Your task to perform on an android device: What's the weather today? Image 0: 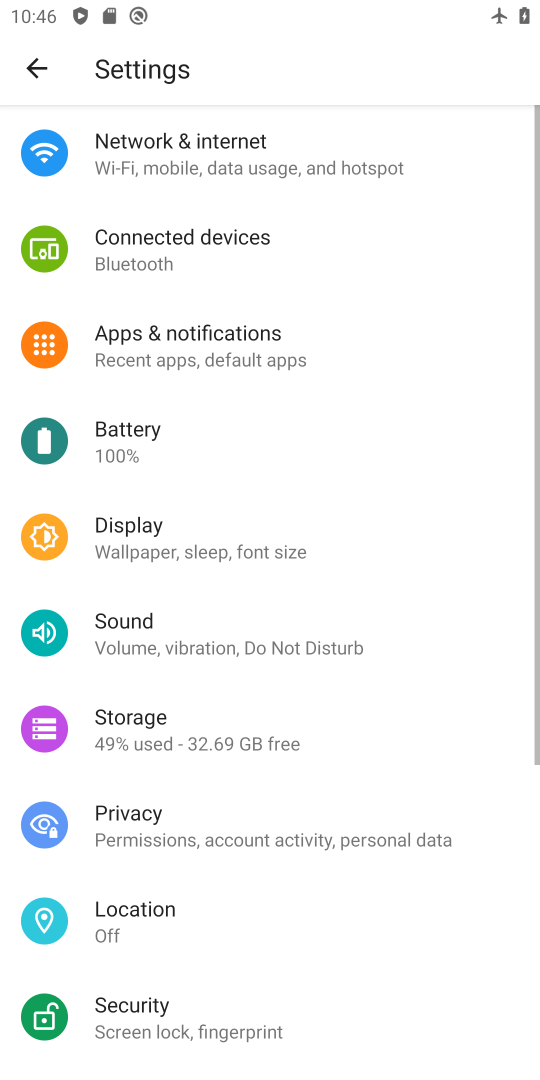
Step 0: press back button
Your task to perform on an android device: What's the weather today? Image 1: 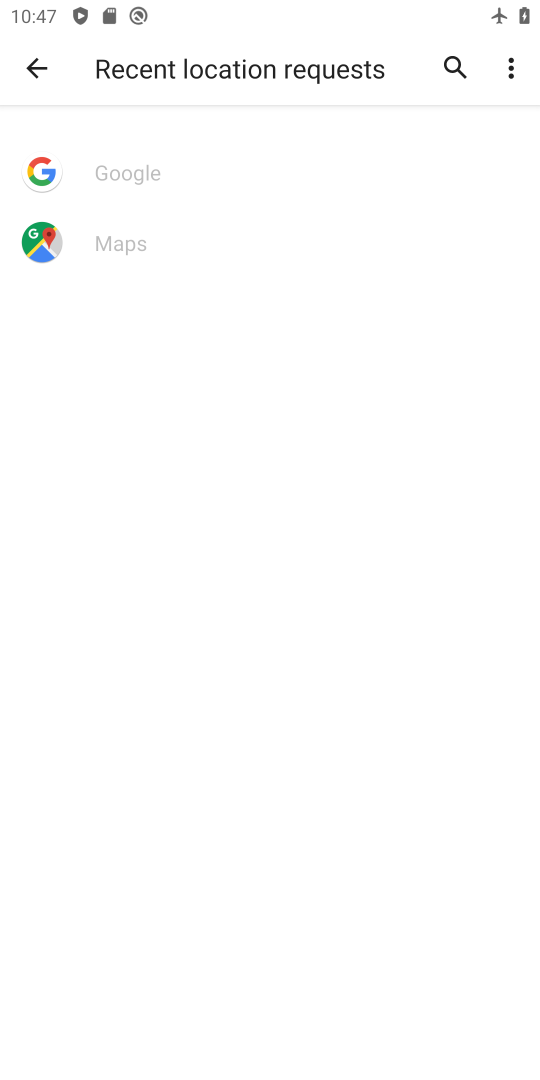
Step 1: press home button
Your task to perform on an android device: What's the weather today? Image 2: 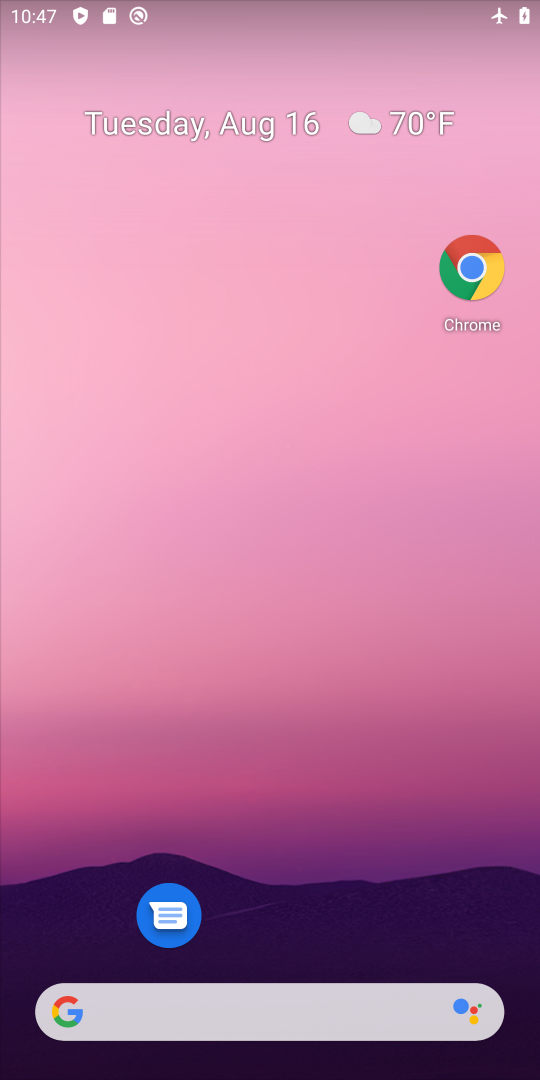
Step 2: click (283, 1035)
Your task to perform on an android device: What's the weather today? Image 3: 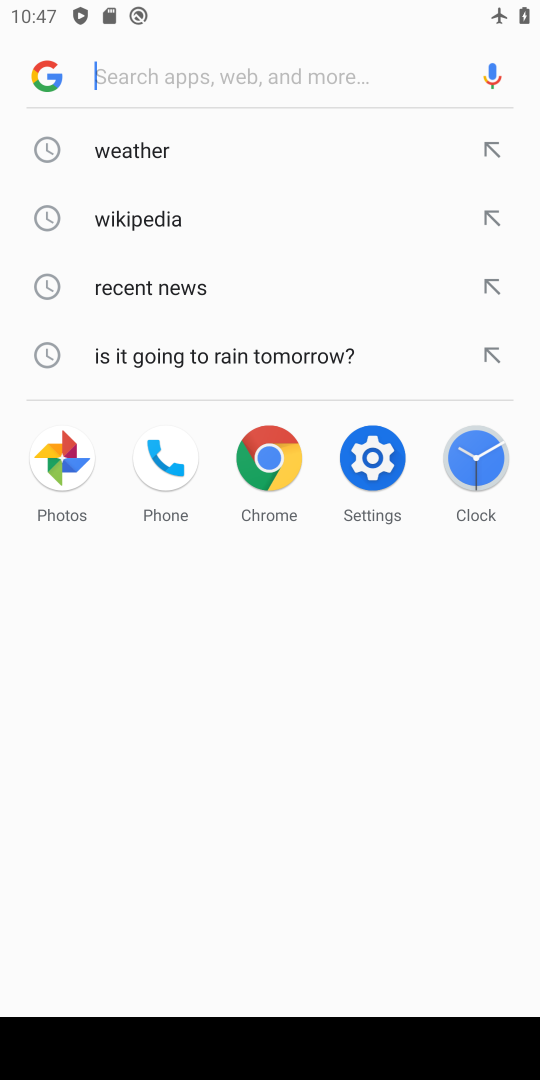
Step 3: click (107, 146)
Your task to perform on an android device: What's the weather today? Image 4: 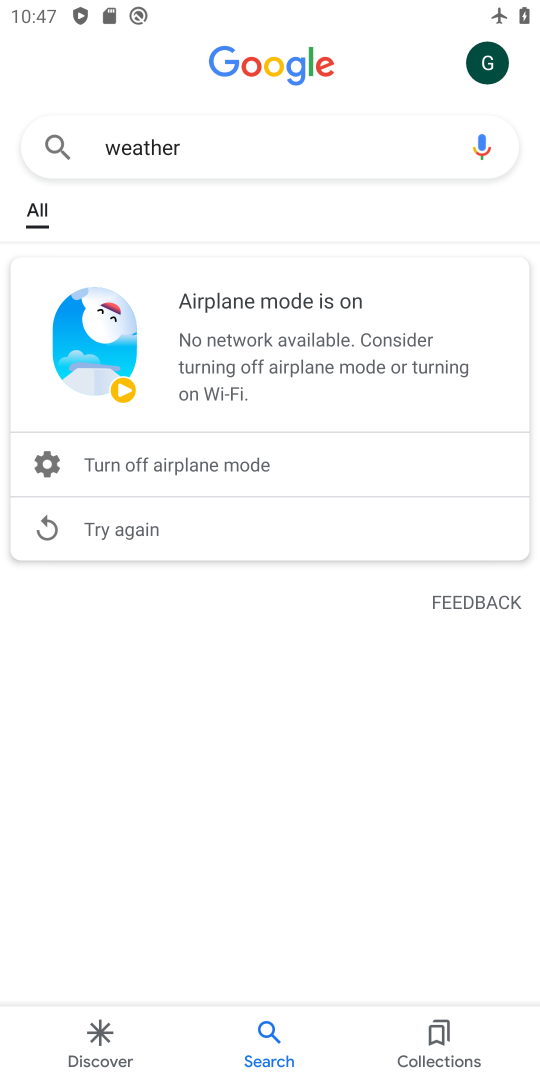
Step 4: task complete